Your task to perform on an android device: Turn on the flashlight Image 0: 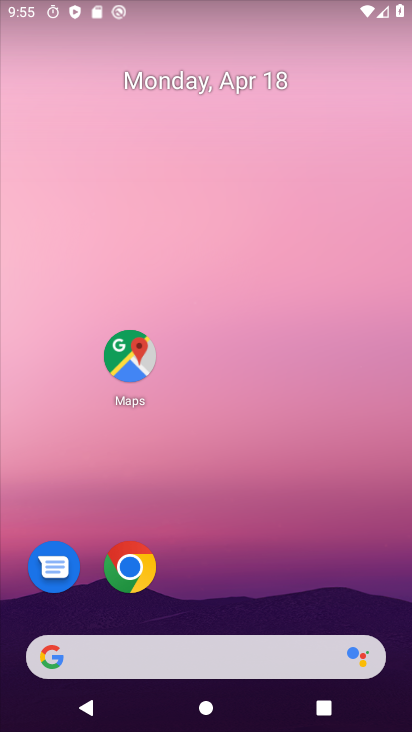
Step 0: drag from (244, 688) to (386, 176)
Your task to perform on an android device: Turn on the flashlight Image 1: 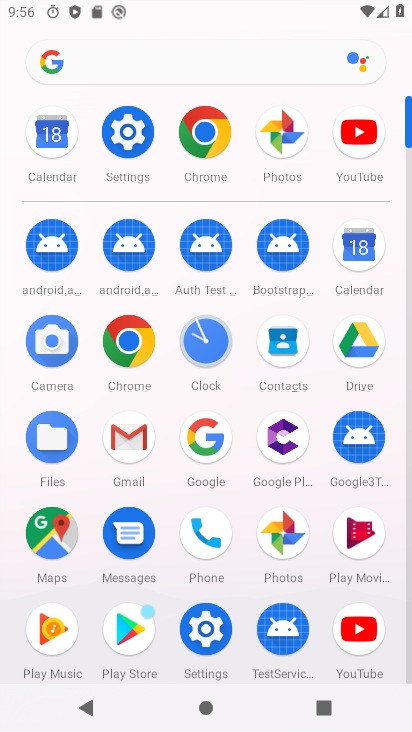
Step 1: click (203, 640)
Your task to perform on an android device: Turn on the flashlight Image 2: 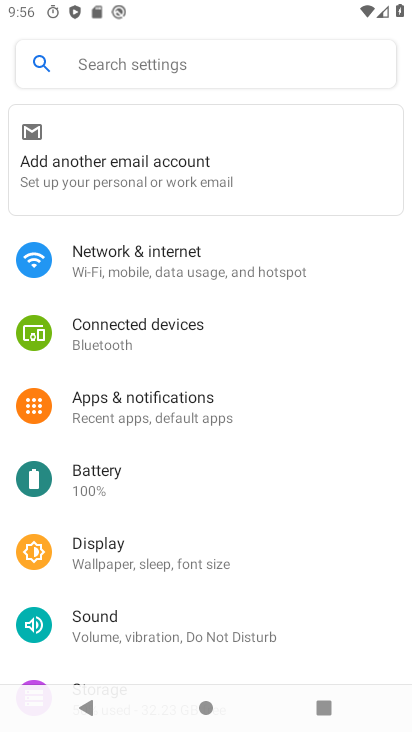
Step 2: click (171, 72)
Your task to perform on an android device: Turn on the flashlight Image 3: 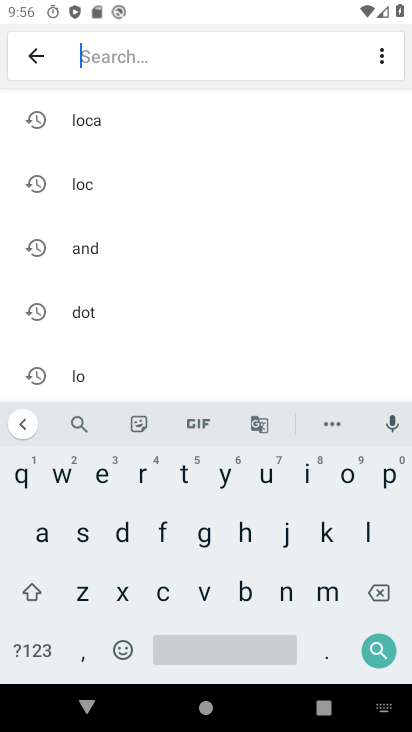
Step 3: click (166, 531)
Your task to perform on an android device: Turn on the flashlight Image 4: 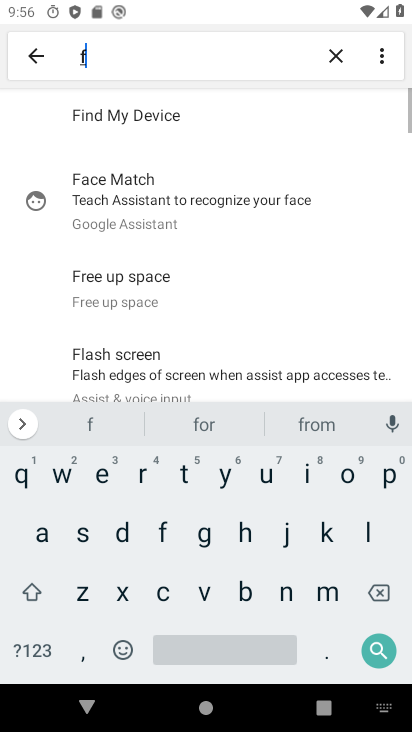
Step 4: click (370, 527)
Your task to perform on an android device: Turn on the flashlight Image 5: 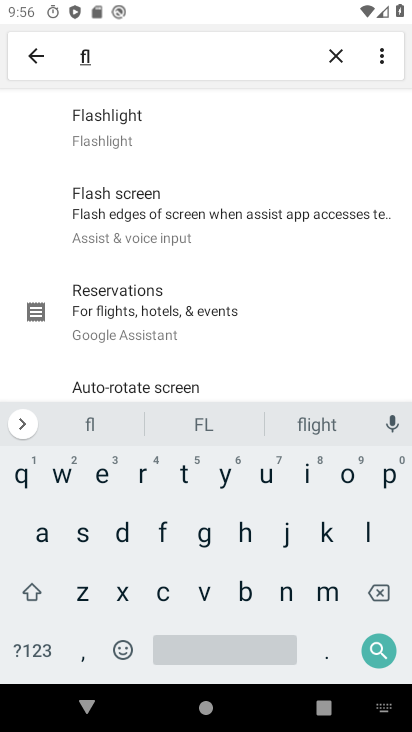
Step 5: click (136, 148)
Your task to perform on an android device: Turn on the flashlight Image 6: 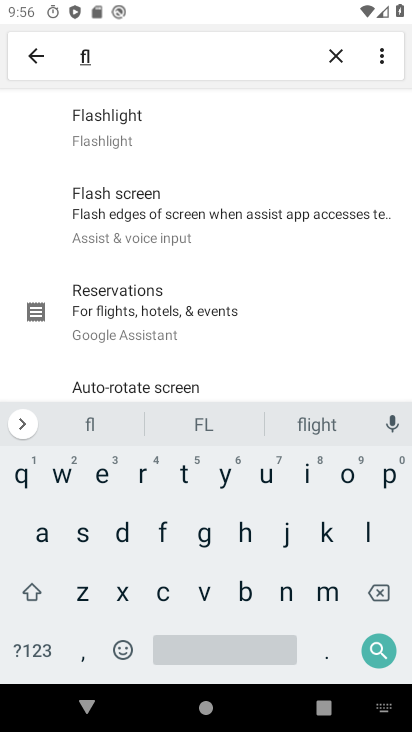
Step 6: click (140, 130)
Your task to perform on an android device: Turn on the flashlight Image 7: 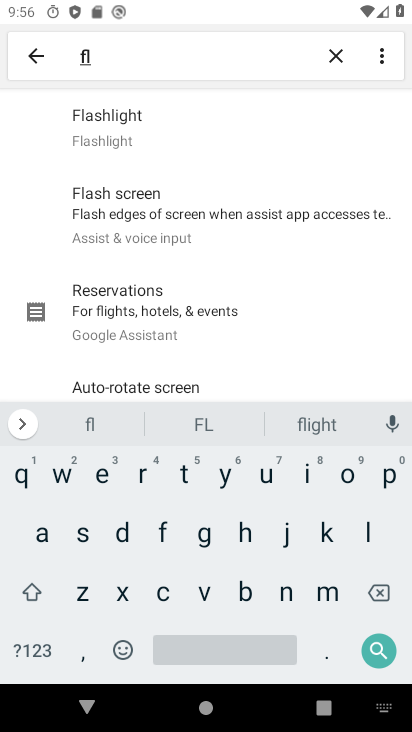
Step 7: task complete